Your task to perform on an android device: Go to Amazon Image 0: 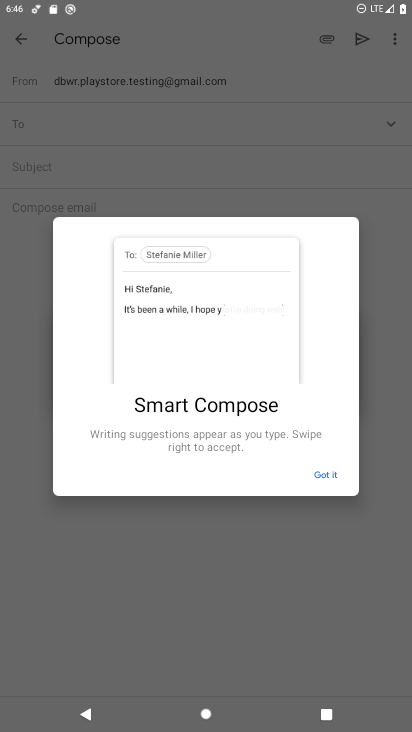
Step 0: press back button
Your task to perform on an android device: Go to Amazon Image 1: 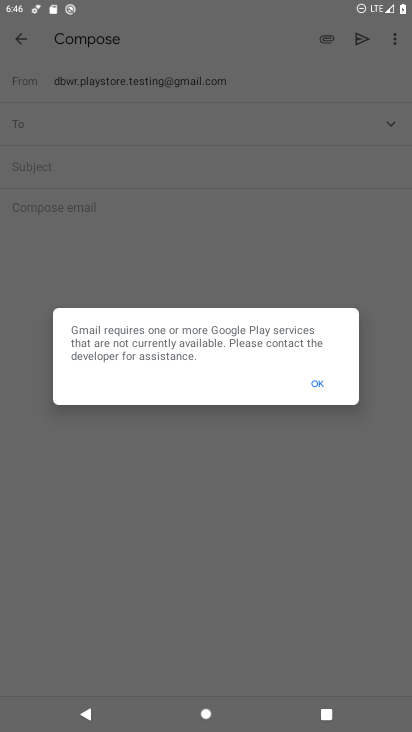
Step 1: press home button
Your task to perform on an android device: Go to Amazon Image 2: 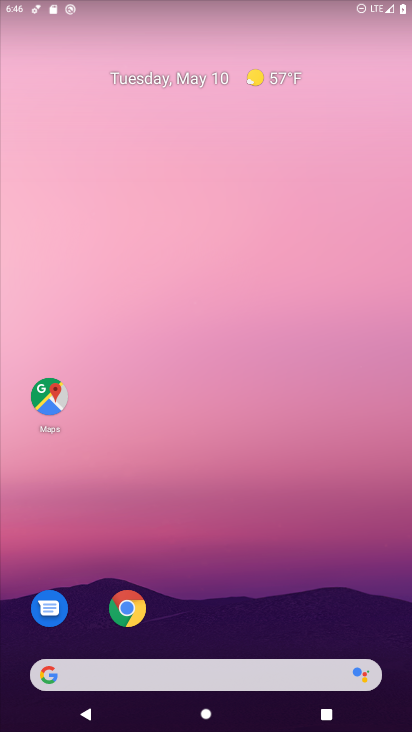
Step 2: drag from (277, 606) to (234, 38)
Your task to perform on an android device: Go to Amazon Image 3: 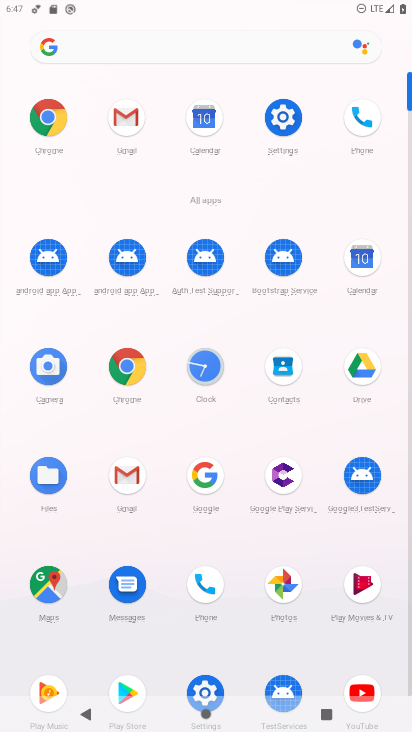
Step 3: click (129, 370)
Your task to perform on an android device: Go to Amazon Image 4: 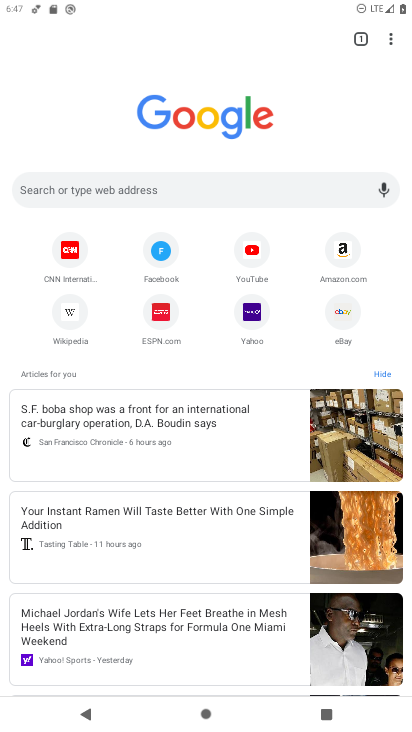
Step 4: click (337, 242)
Your task to perform on an android device: Go to Amazon Image 5: 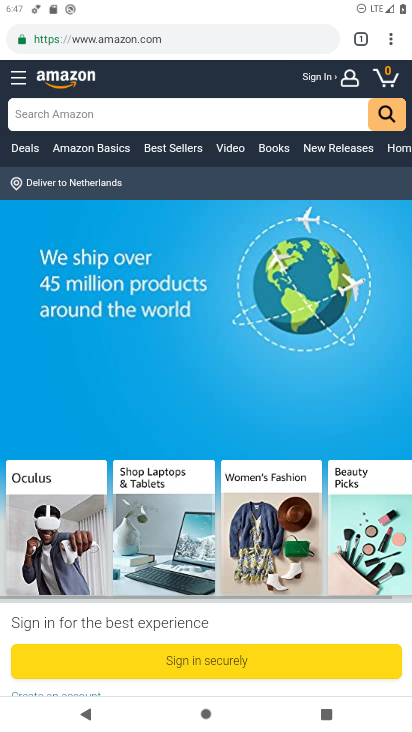
Step 5: task complete